Your task to perform on an android device: turn on sleep mode Image 0: 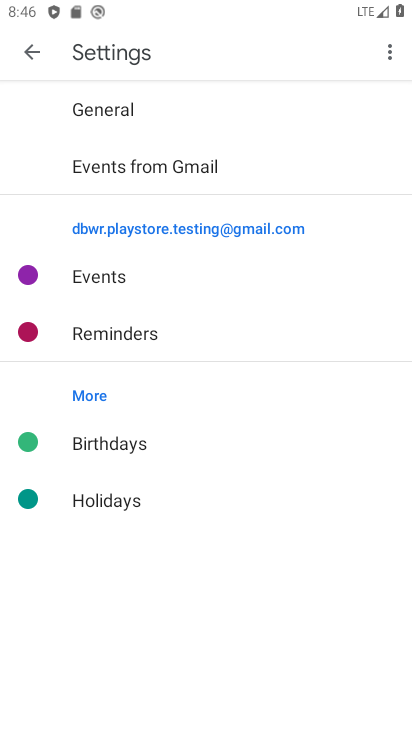
Step 0: press back button
Your task to perform on an android device: turn on sleep mode Image 1: 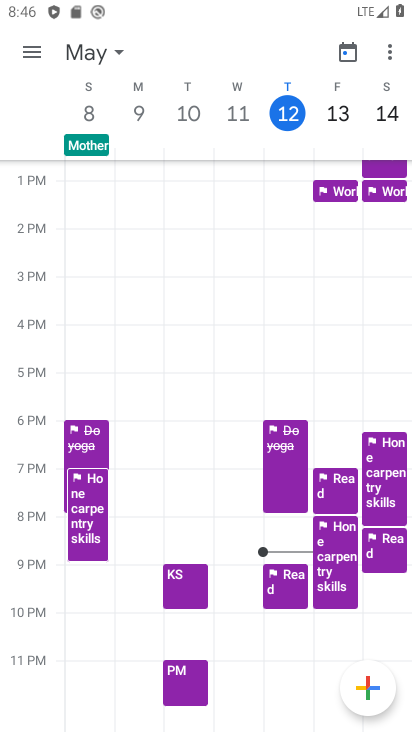
Step 1: press back button
Your task to perform on an android device: turn on sleep mode Image 2: 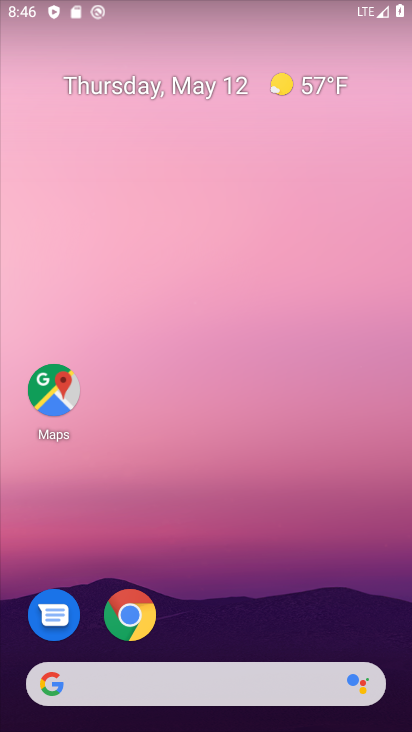
Step 2: drag from (299, 594) to (210, 59)
Your task to perform on an android device: turn on sleep mode Image 3: 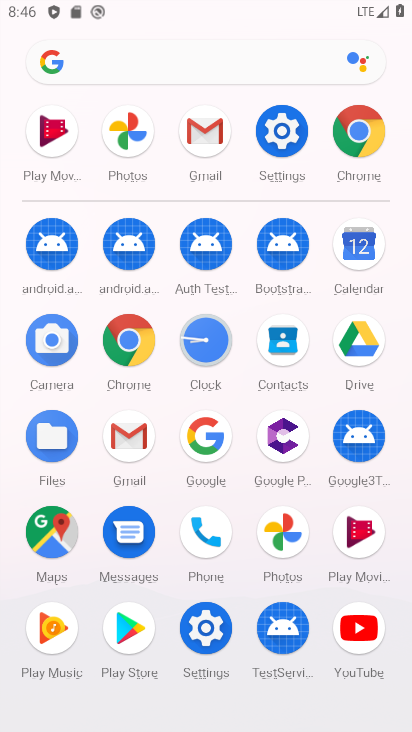
Step 3: click (283, 125)
Your task to perform on an android device: turn on sleep mode Image 4: 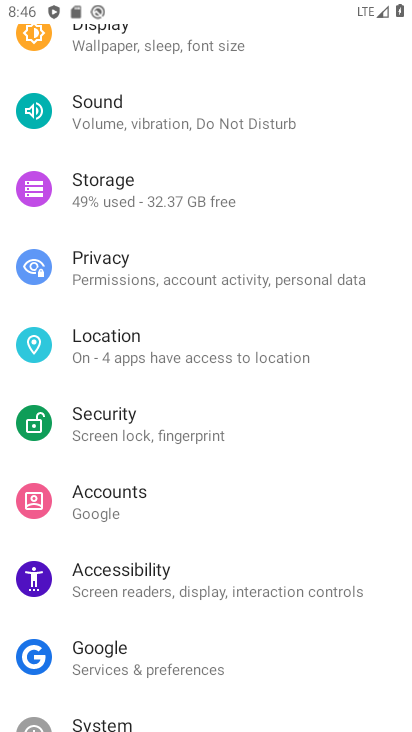
Step 4: drag from (273, 219) to (278, 531)
Your task to perform on an android device: turn on sleep mode Image 5: 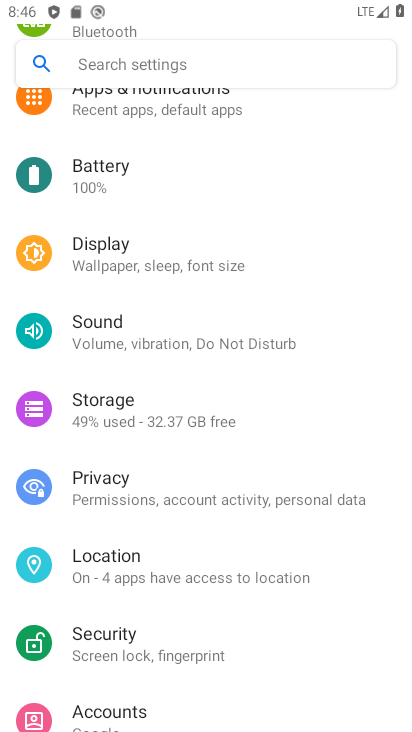
Step 5: drag from (259, 242) to (273, 544)
Your task to perform on an android device: turn on sleep mode Image 6: 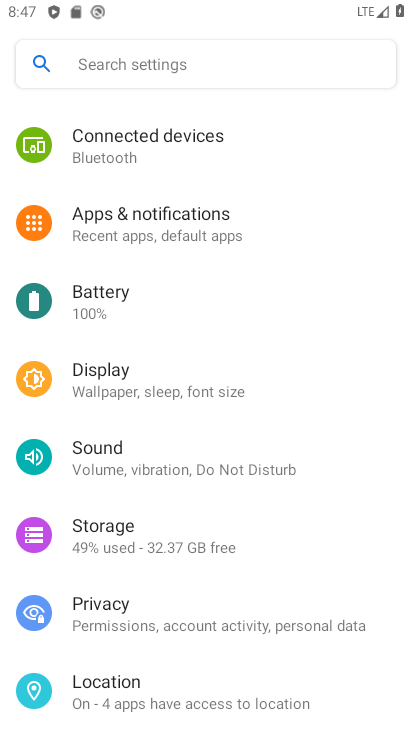
Step 6: drag from (270, 513) to (272, 131)
Your task to perform on an android device: turn on sleep mode Image 7: 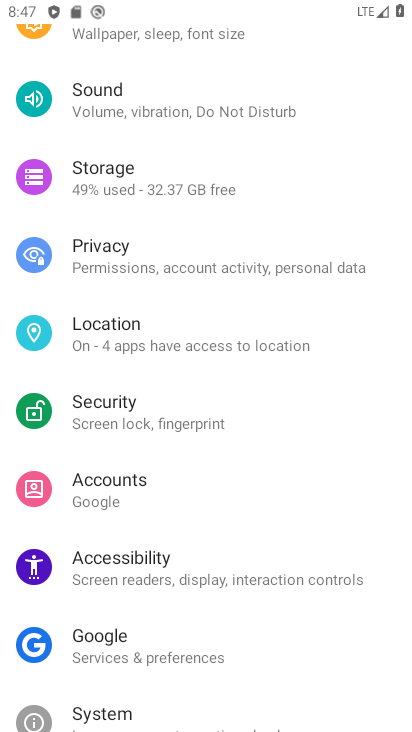
Step 7: drag from (211, 541) to (259, 193)
Your task to perform on an android device: turn on sleep mode Image 8: 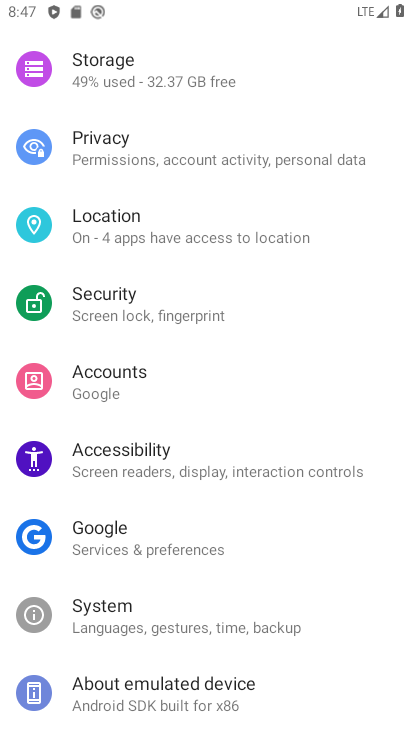
Step 8: drag from (268, 89) to (260, 582)
Your task to perform on an android device: turn on sleep mode Image 9: 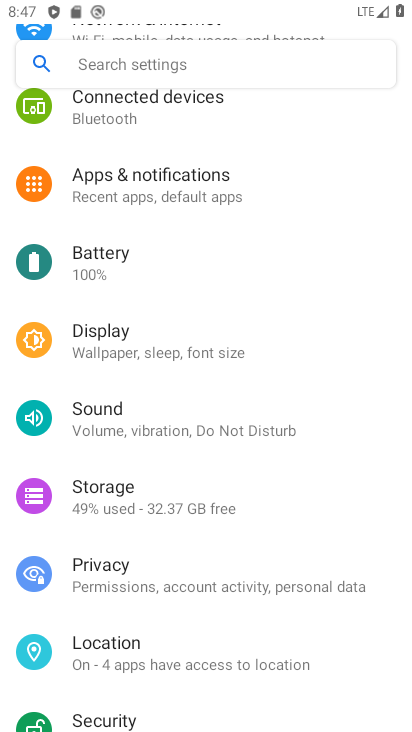
Step 9: drag from (266, 158) to (267, 591)
Your task to perform on an android device: turn on sleep mode Image 10: 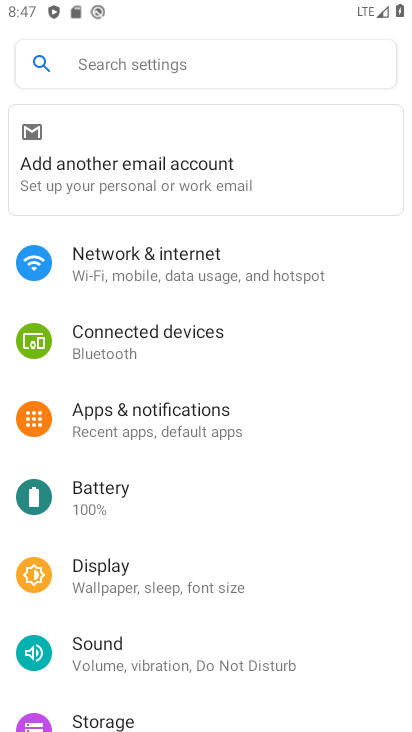
Step 10: click (209, 255)
Your task to perform on an android device: turn on sleep mode Image 11: 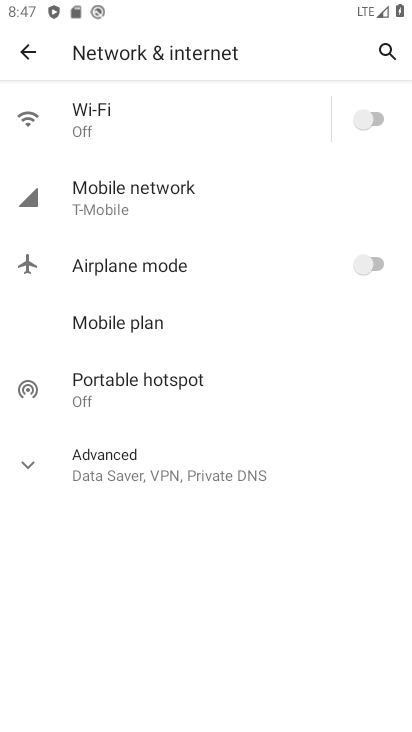
Step 11: click (10, 459)
Your task to perform on an android device: turn on sleep mode Image 12: 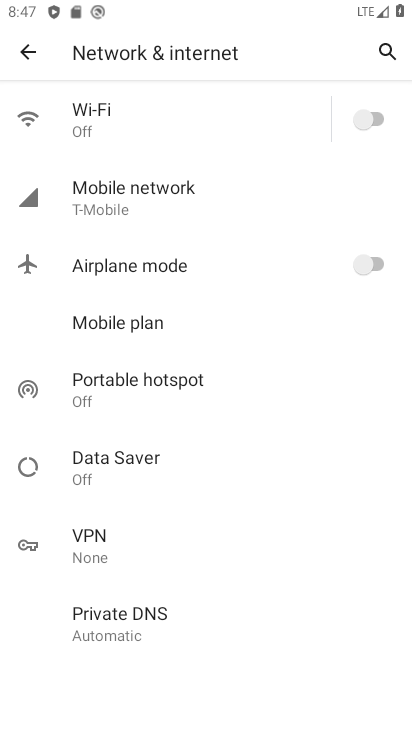
Step 12: click (26, 51)
Your task to perform on an android device: turn on sleep mode Image 13: 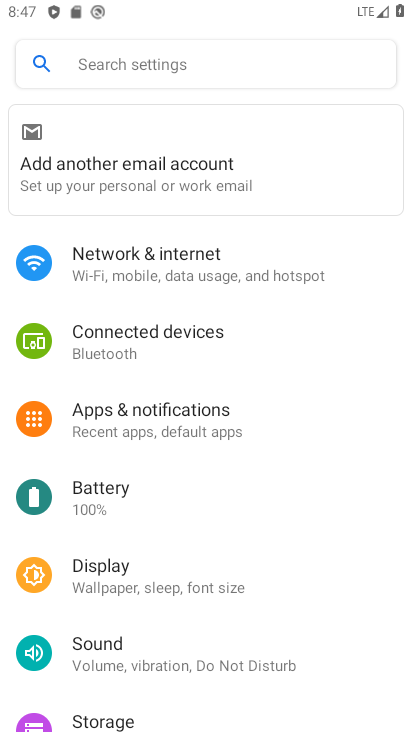
Step 13: click (139, 571)
Your task to perform on an android device: turn on sleep mode Image 14: 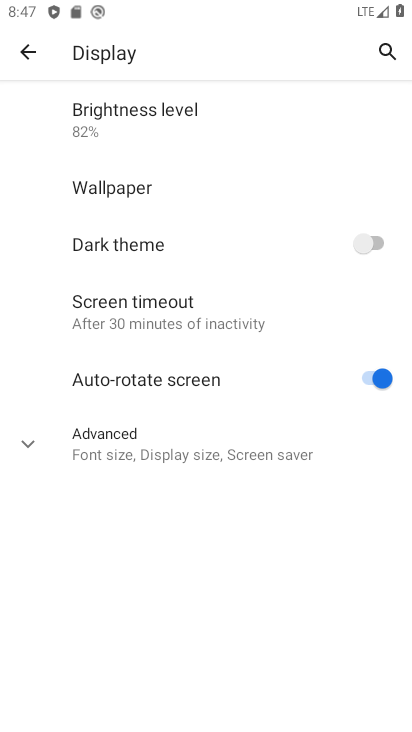
Step 14: click (56, 453)
Your task to perform on an android device: turn on sleep mode Image 15: 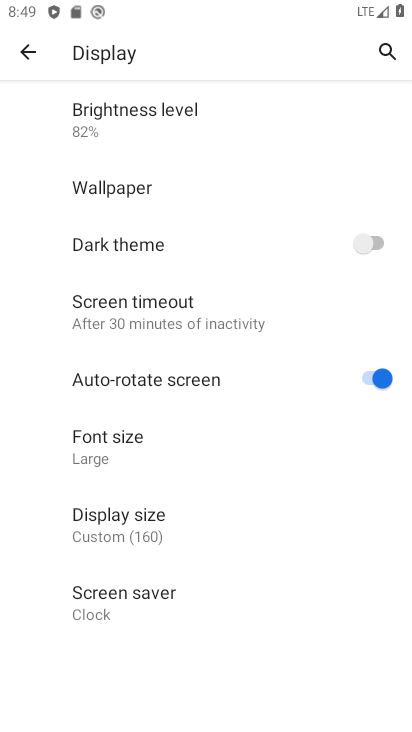
Step 15: task complete